Your task to perform on an android device: toggle pop-ups in chrome Image 0: 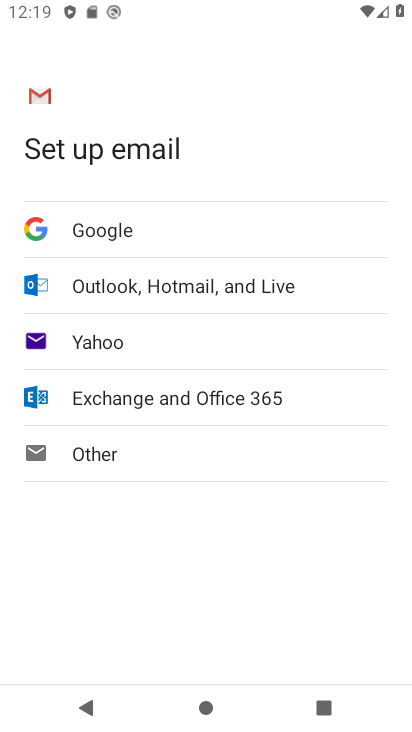
Step 0: press home button
Your task to perform on an android device: toggle pop-ups in chrome Image 1: 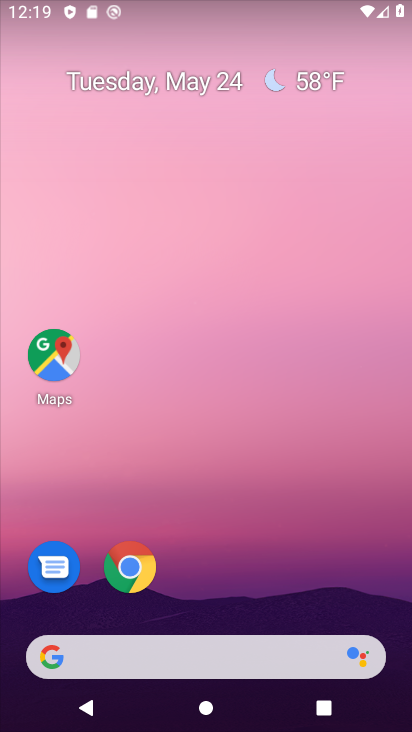
Step 1: click (140, 578)
Your task to perform on an android device: toggle pop-ups in chrome Image 2: 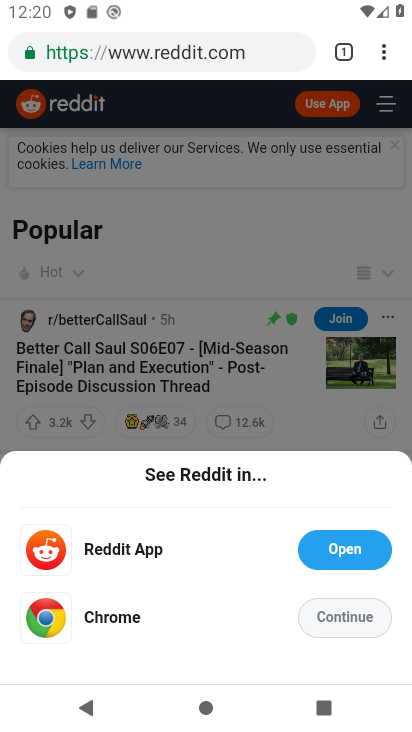
Step 2: drag from (391, 53) to (218, 603)
Your task to perform on an android device: toggle pop-ups in chrome Image 3: 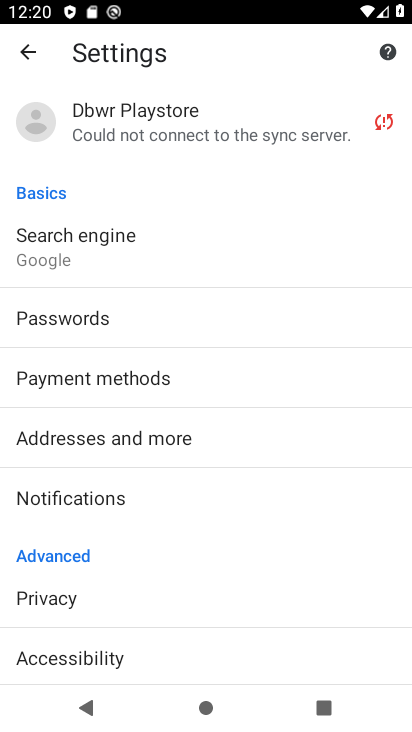
Step 3: drag from (186, 599) to (180, 175)
Your task to perform on an android device: toggle pop-ups in chrome Image 4: 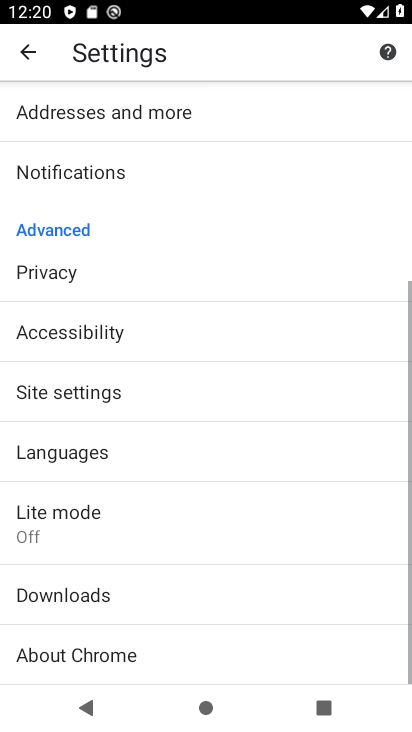
Step 4: click (122, 386)
Your task to perform on an android device: toggle pop-ups in chrome Image 5: 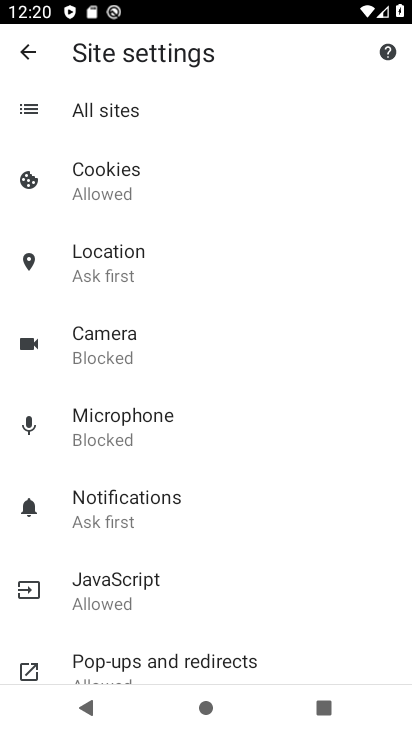
Step 5: click (158, 653)
Your task to perform on an android device: toggle pop-ups in chrome Image 6: 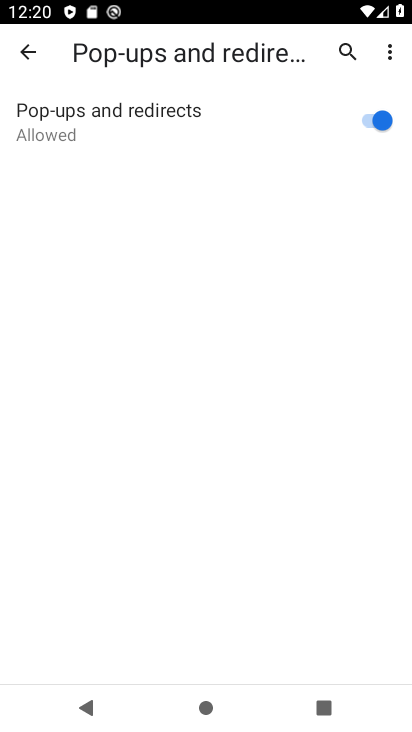
Step 6: click (369, 116)
Your task to perform on an android device: toggle pop-ups in chrome Image 7: 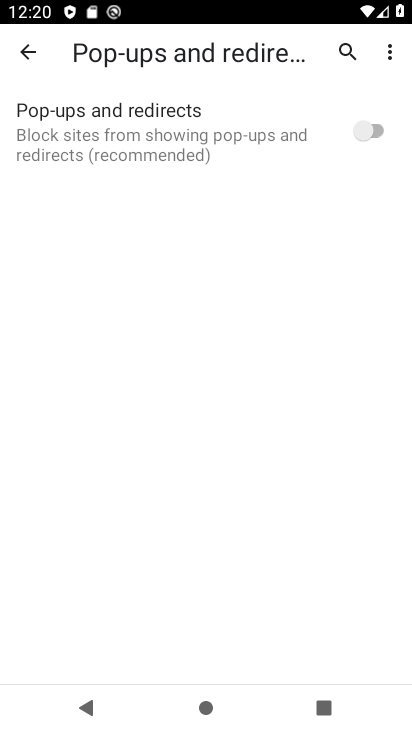
Step 7: task complete